Your task to perform on an android device: Go to Yahoo.com Image 0: 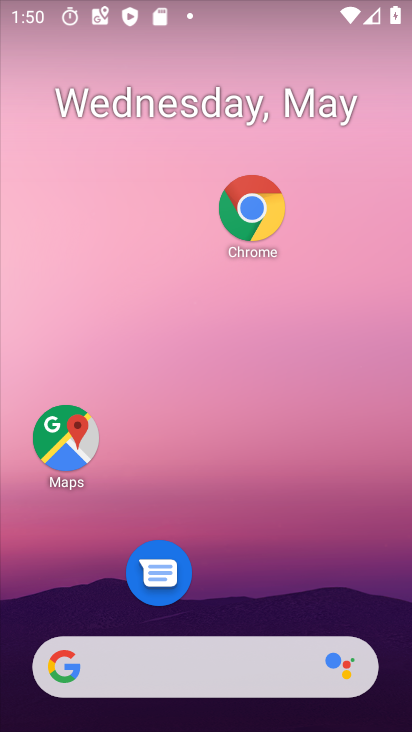
Step 0: click (247, 207)
Your task to perform on an android device: Go to Yahoo.com Image 1: 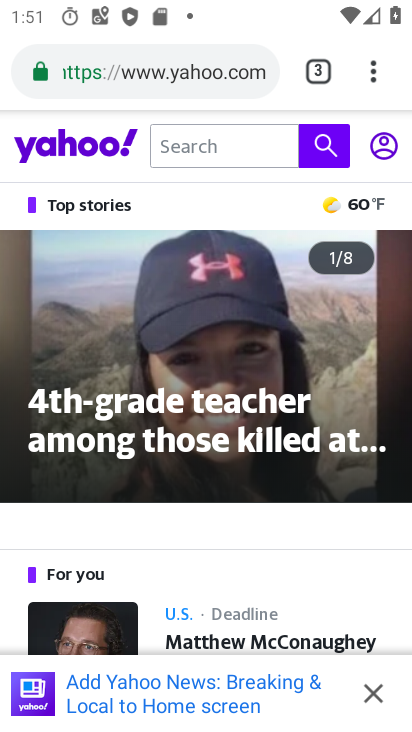
Step 1: task complete